Your task to perform on an android device: move an email to a new category in the gmail app Image 0: 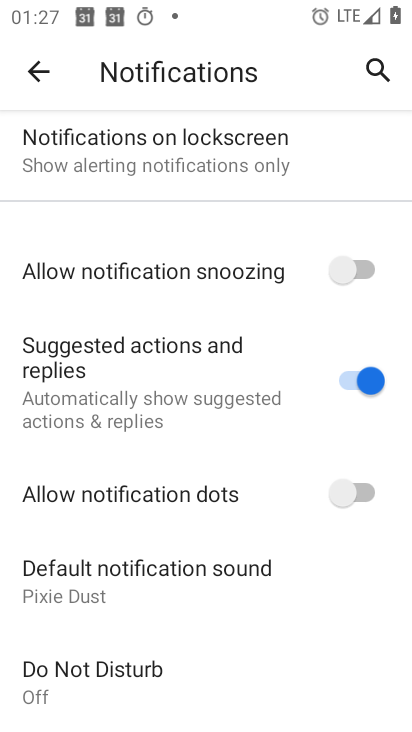
Step 0: press home button
Your task to perform on an android device: move an email to a new category in the gmail app Image 1: 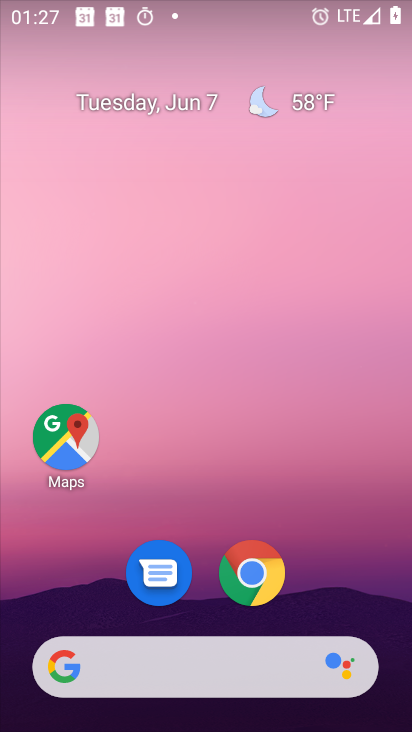
Step 1: drag from (324, 570) to (306, 24)
Your task to perform on an android device: move an email to a new category in the gmail app Image 2: 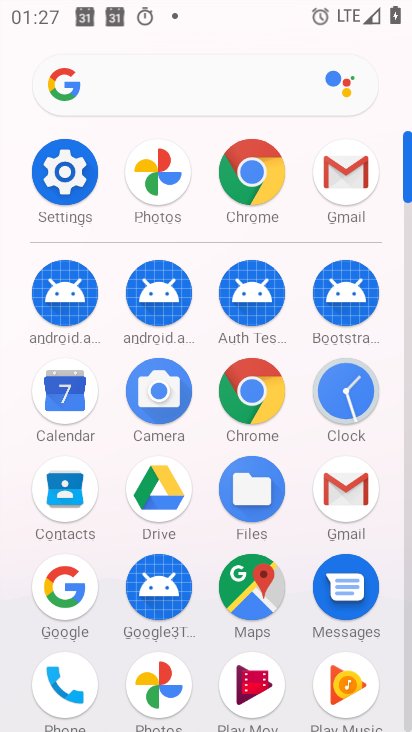
Step 2: click (339, 482)
Your task to perform on an android device: move an email to a new category in the gmail app Image 3: 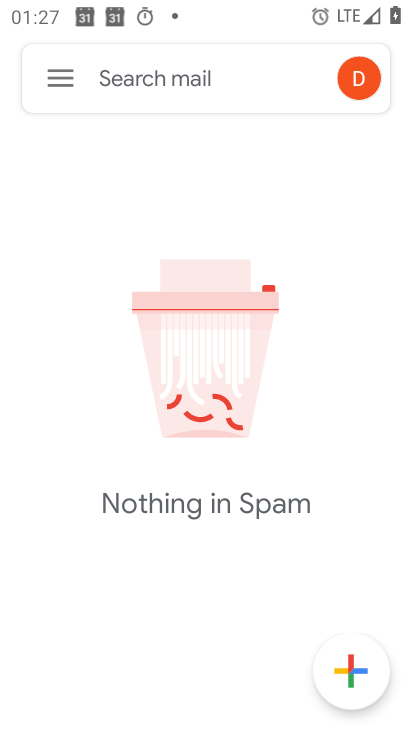
Step 3: click (65, 84)
Your task to perform on an android device: move an email to a new category in the gmail app Image 4: 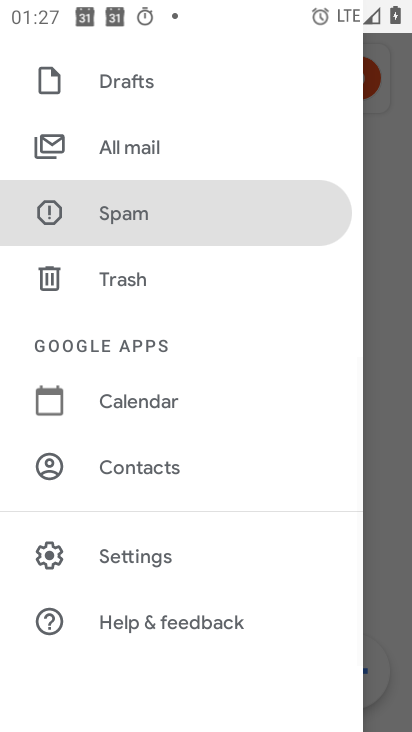
Step 4: drag from (207, 121) to (184, 530)
Your task to perform on an android device: move an email to a new category in the gmail app Image 5: 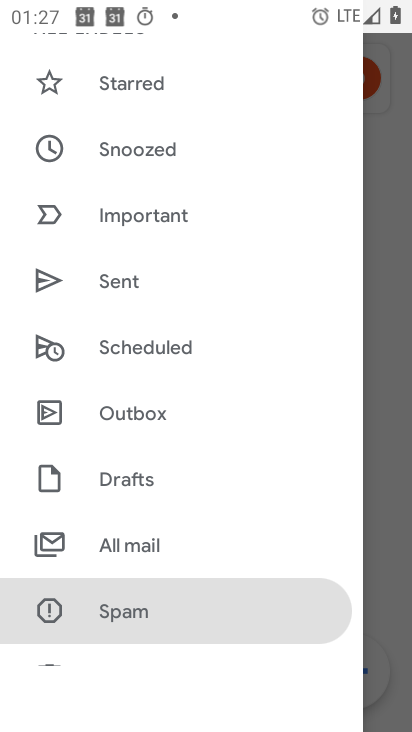
Step 5: drag from (244, 179) to (210, 537)
Your task to perform on an android device: move an email to a new category in the gmail app Image 6: 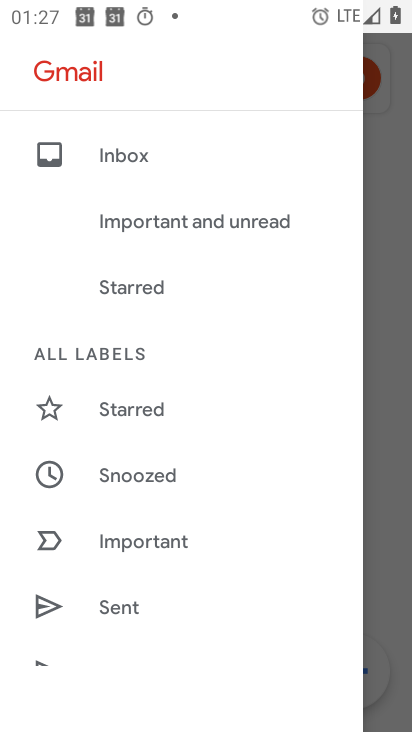
Step 6: click (138, 157)
Your task to perform on an android device: move an email to a new category in the gmail app Image 7: 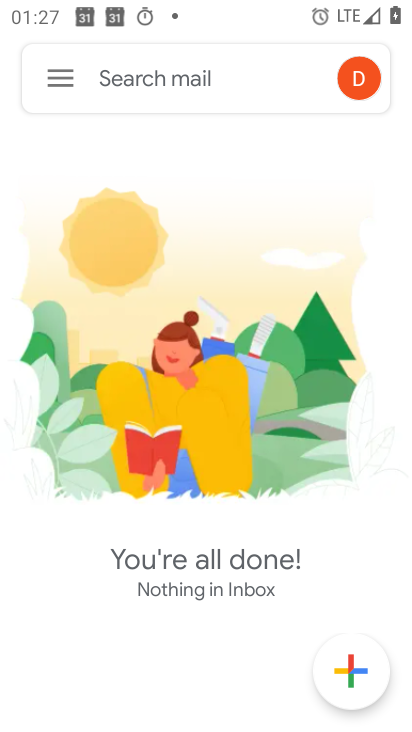
Step 7: task complete